Your task to perform on an android device: turn on sleep mode Image 0: 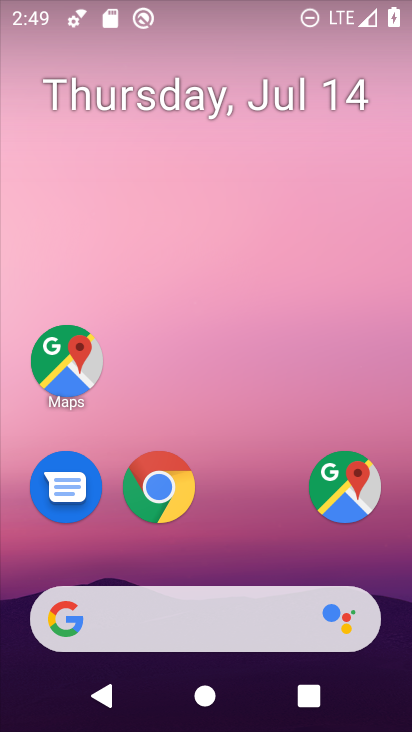
Step 0: drag from (277, 547) to (303, 167)
Your task to perform on an android device: turn on sleep mode Image 1: 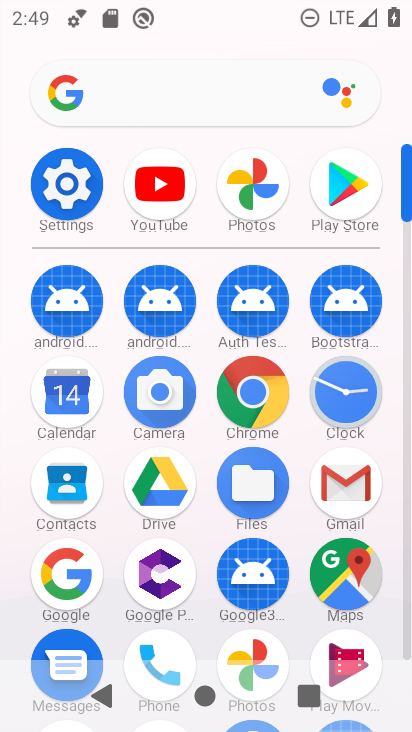
Step 1: click (71, 190)
Your task to perform on an android device: turn on sleep mode Image 2: 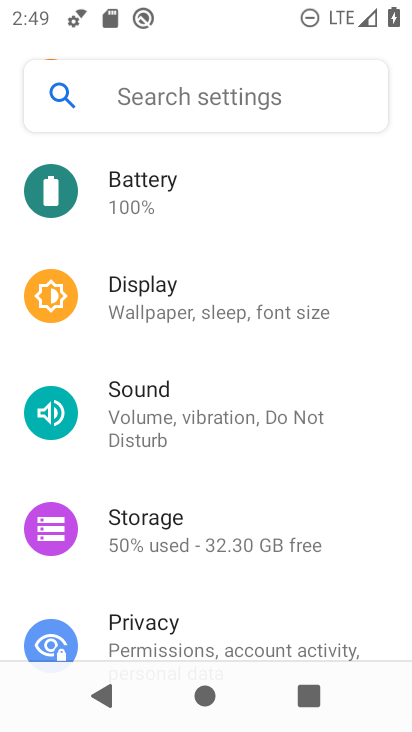
Step 2: drag from (349, 571) to (360, 432)
Your task to perform on an android device: turn on sleep mode Image 3: 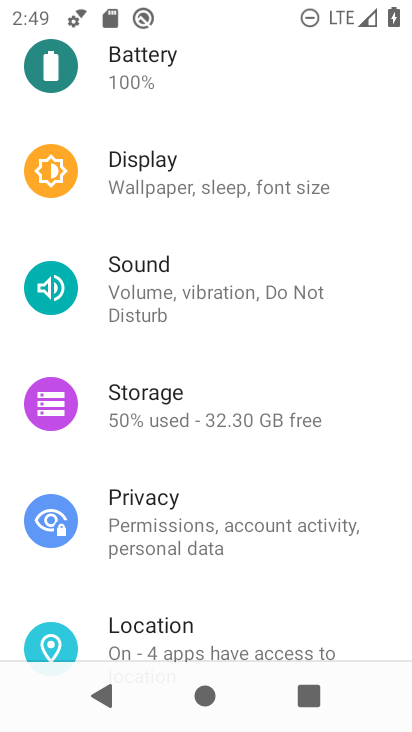
Step 3: drag from (358, 586) to (365, 505)
Your task to perform on an android device: turn on sleep mode Image 4: 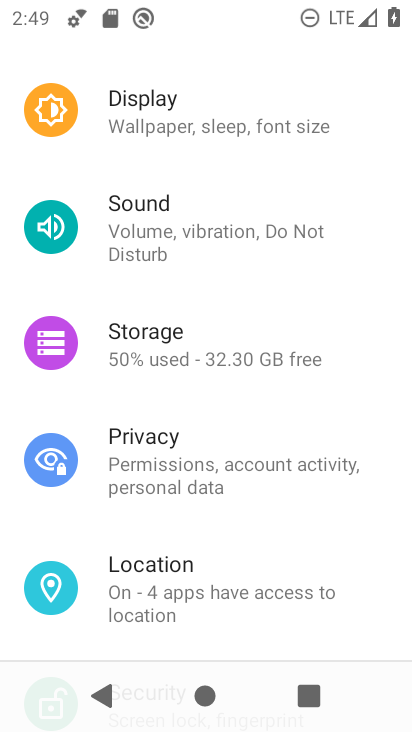
Step 4: drag from (354, 615) to (364, 526)
Your task to perform on an android device: turn on sleep mode Image 5: 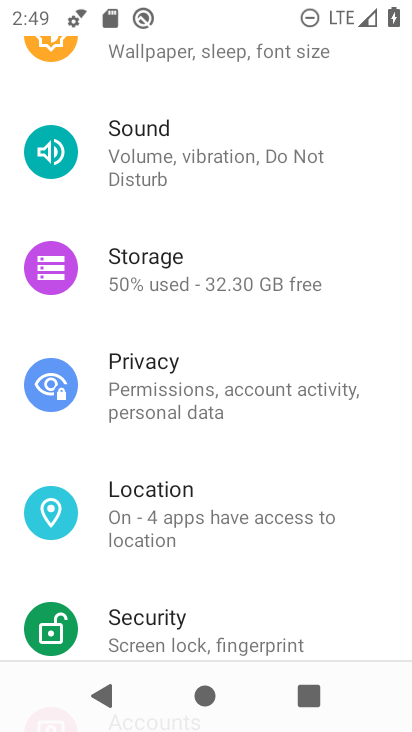
Step 5: drag from (392, 490) to (402, 342)
Your task to perform on an android device: turn on sleep mode Image 6: 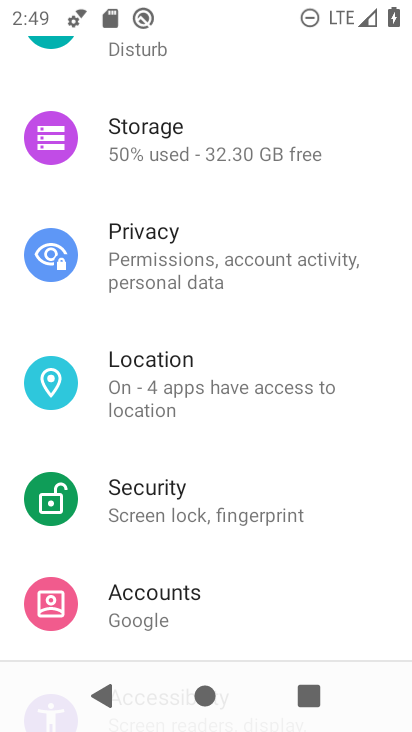
Step 6: drag from (380, 469) to (379, 387)
Your task to perform on an android device: turn on sleep mode Image 7: 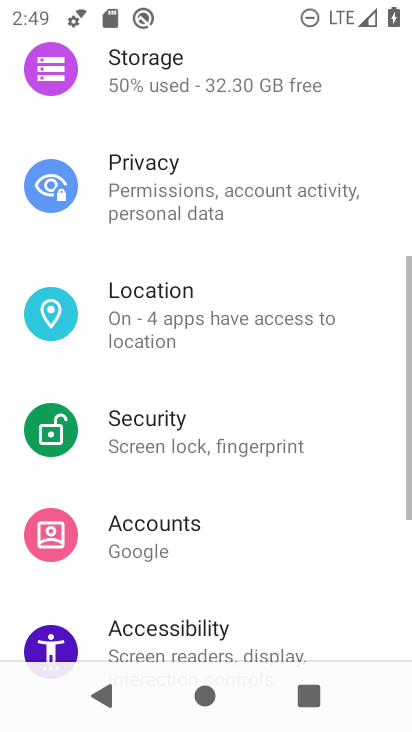
Step 7: drag from (386, 535) to (374, 458)
Your task to perform on an android device: turn on sleep mode Image 8: 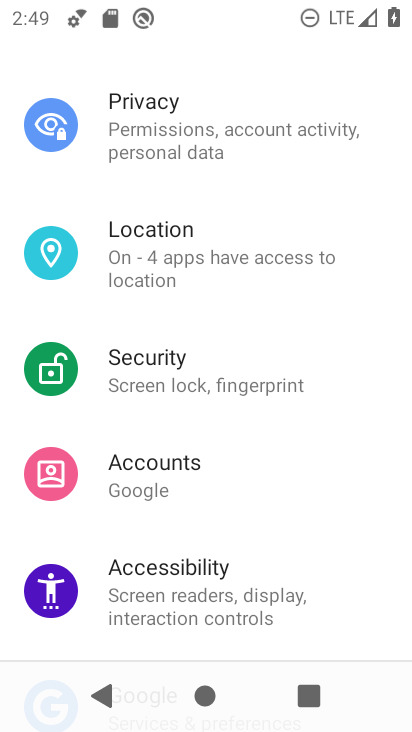
Step 8: drag from (386, 541) to (356, 443)
Your task to perform on an android device: turn on sleep mode Image 9: 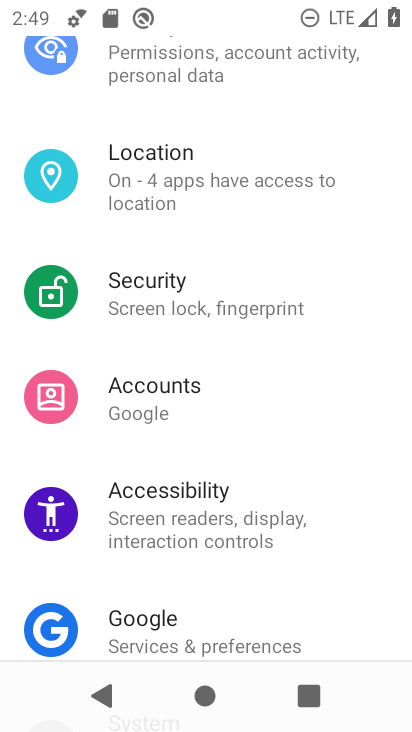
Step 9: drag from (378, 580) to (349, 475)
Your task to perform on an android device: turn on sleep mode Image 10: 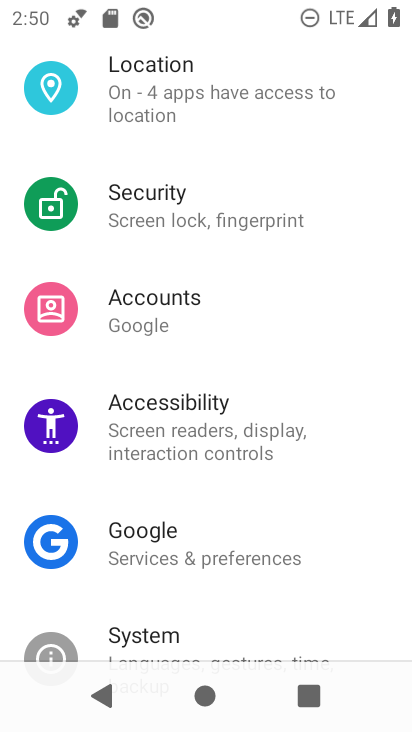
Step 10: drag from (373, 567) to (361, 477)
Your task to perform on an android device: turn on sleep mode Image 11: 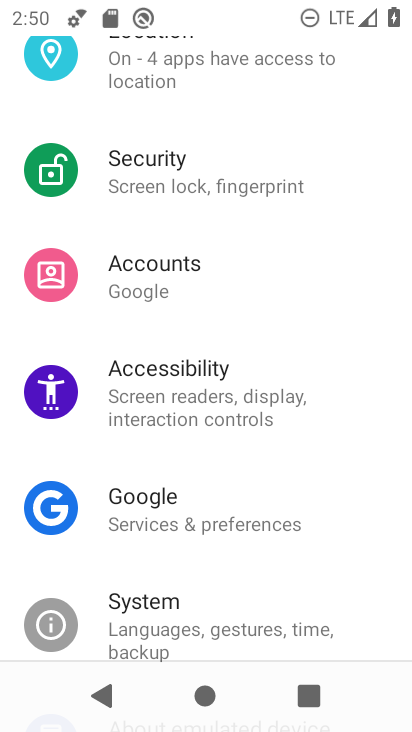
Step 11: drag from (351, 412) to (364, 486)
Your task to perform on an android device: turn on sleep mode Image 12: 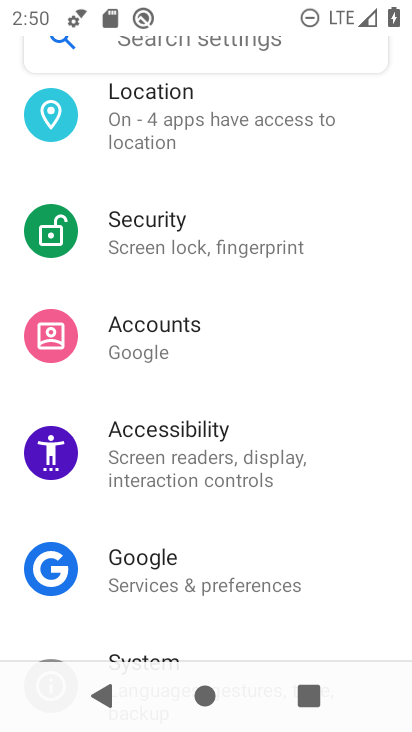
Step 12: drag from (337, 397) to (365, 470)
Your task to perform on an android device: turn on sleep mode Image 13: 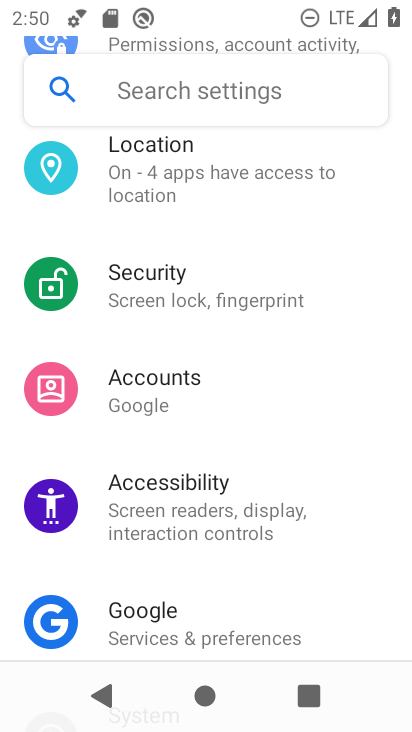
Step 13: drag from (362, 394) to (390, 473)
Your task to perform on an android device: turn on sleep mode Image 14: 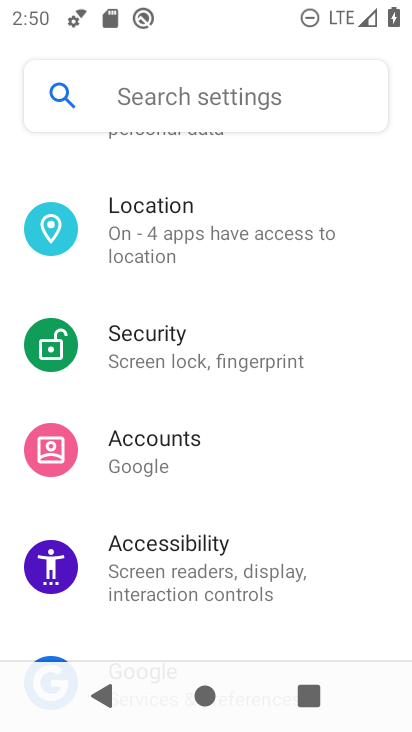
Step 14: drag from (356, 408) to (381, 497)
Your task to perform on an android device: turn on sleep mode Image 15: 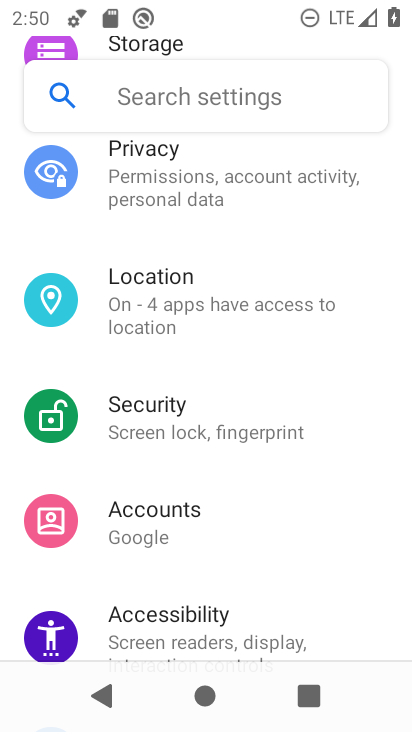
Step 15: drag from (354, 391) to (366, 466)
Your task to perform on an android device: turn on sleep mode Image 16: 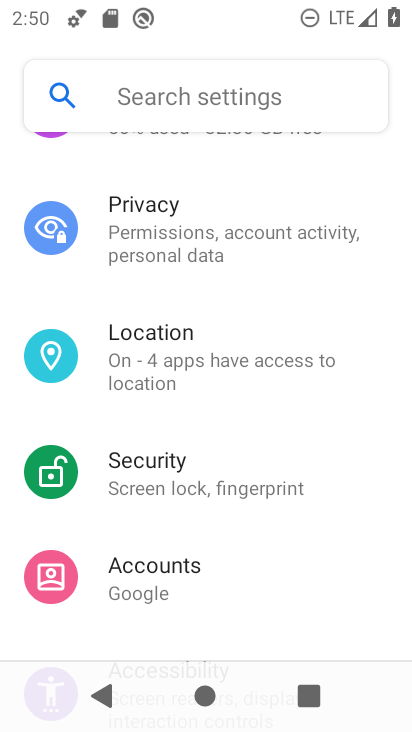
Step 16: drag from (350, 379) to (393, 530)
Your task to perform on an android device: turn on sleep mode Image 17: 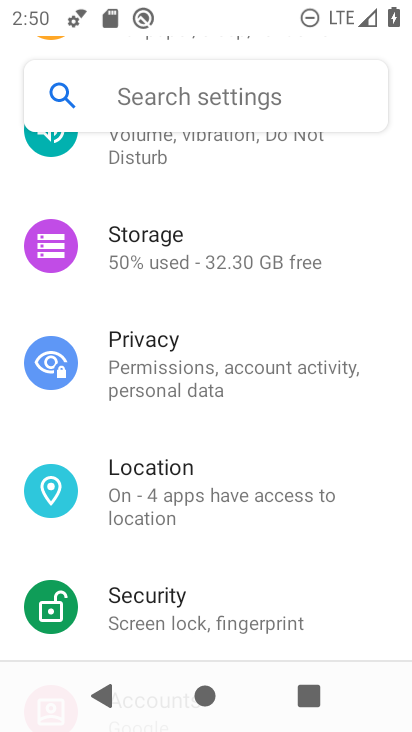
Step 17: drag from (366, 438) to (378, 541)
Your task to perform on an android device: turn on sleep mode Image 18: 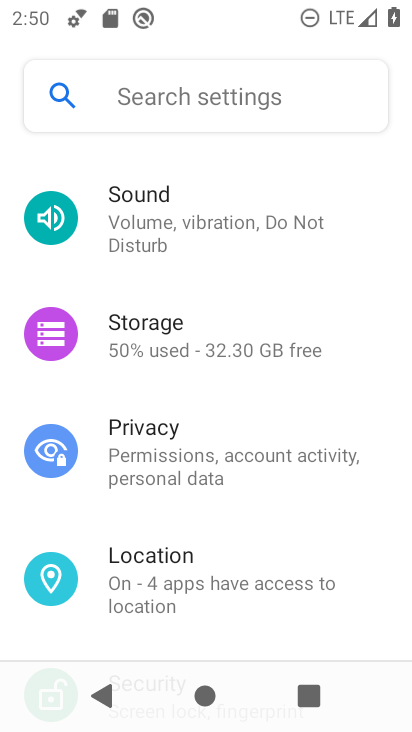
Step 18: drag from (378, 484) to (381, 562)
Your task to perform on an android device: turn on sleep mode Image 19: 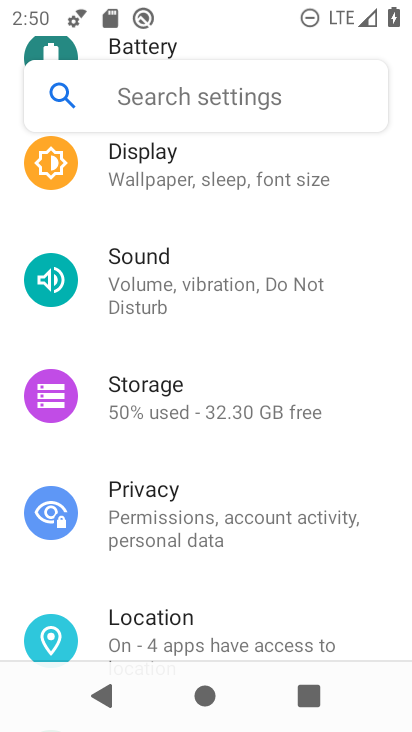
Step 19: drag from (360, 460) to (374, 544)
Your task to perform on an android device: turn on sleep mode Image 20: 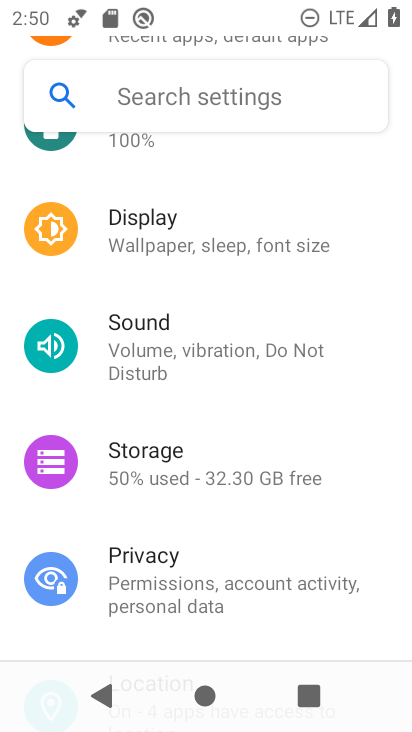
Step 20: drag from (365, 468) to (378, 561)
Your task to perform on an android device: turn on sleep mode Image 21: 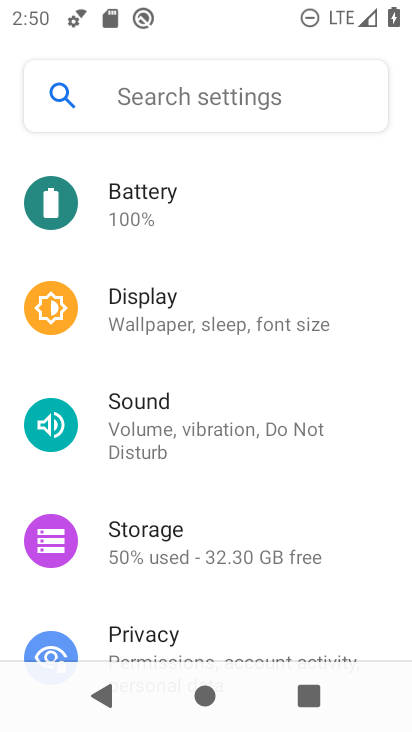
Step 21: drag from (359, 456) to (368, 541)
Your task to perform on an android device: turn on sleep mode Image 22: 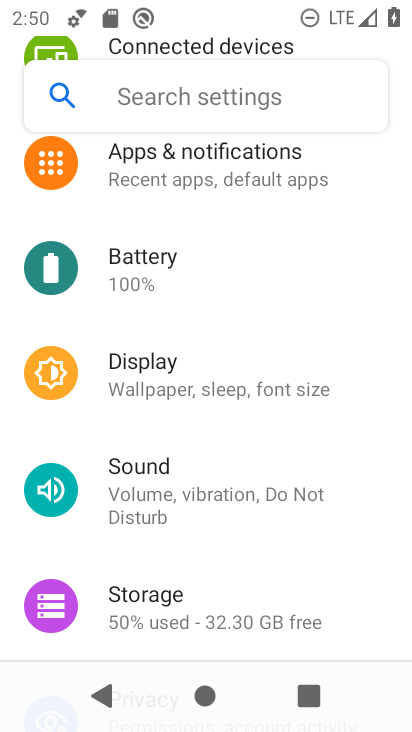
Step 22: drag from (356, 469) to (372, 551)
Your task to perform on an android device: turn on sleep mode Image 23: 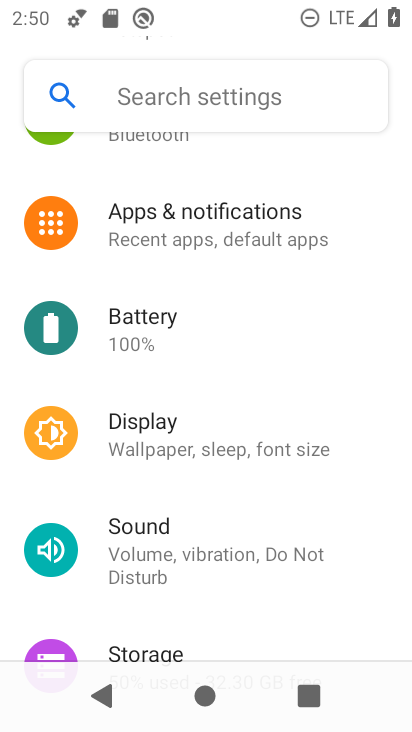
Step 23: click (318, 455)
Your task to perform on an android device: turn on sleep mode Image 24: 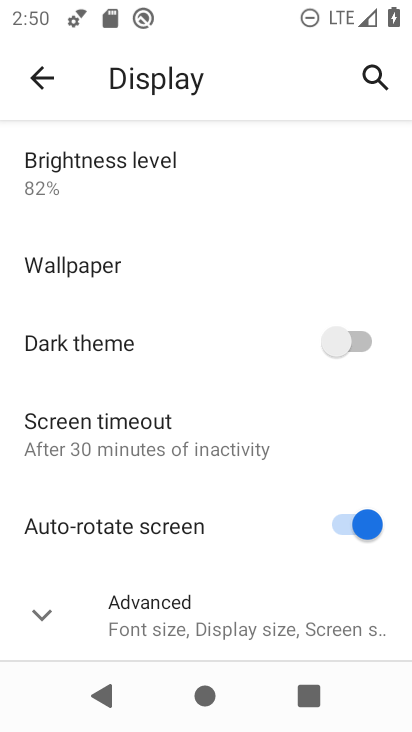
Step 24: click (240, 609)
Your task to perform on an android device: turn on sleep mode Image 25: 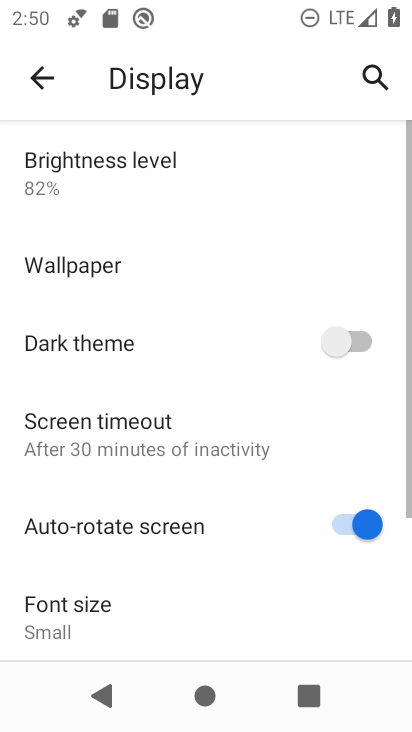
Step 25: task complete